Your task to perform on an android device: Search for "rayovac triple a" on target.com, select the first entry, and add it to the cart. Image 0: 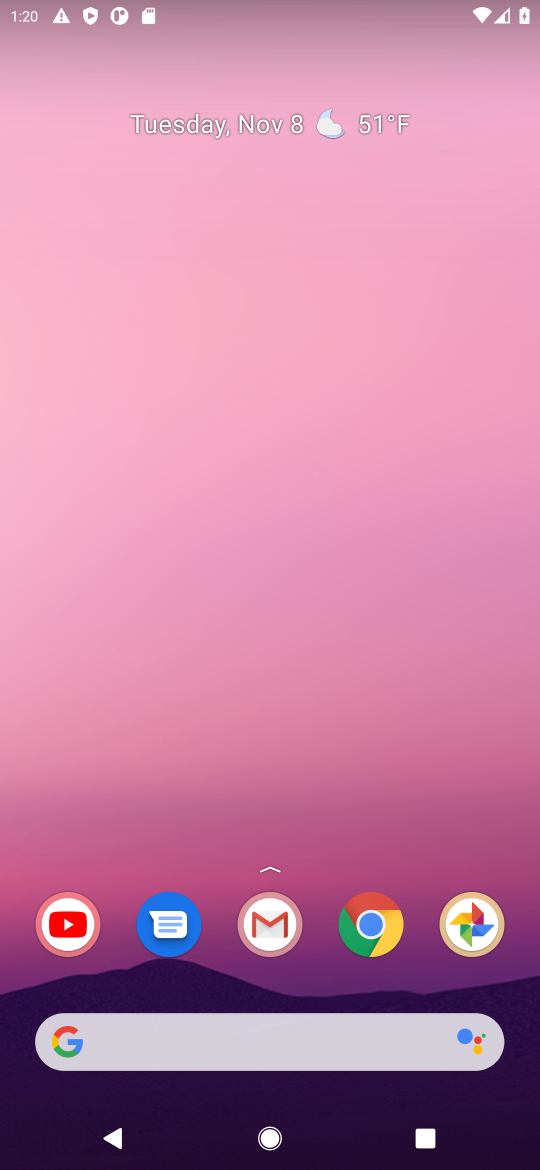
Step 0: click (362, 918)
Your task to perform on an android device: Search for "rayovac triple a" on target.com, select the first entry, and add it to the cart. Image 1: 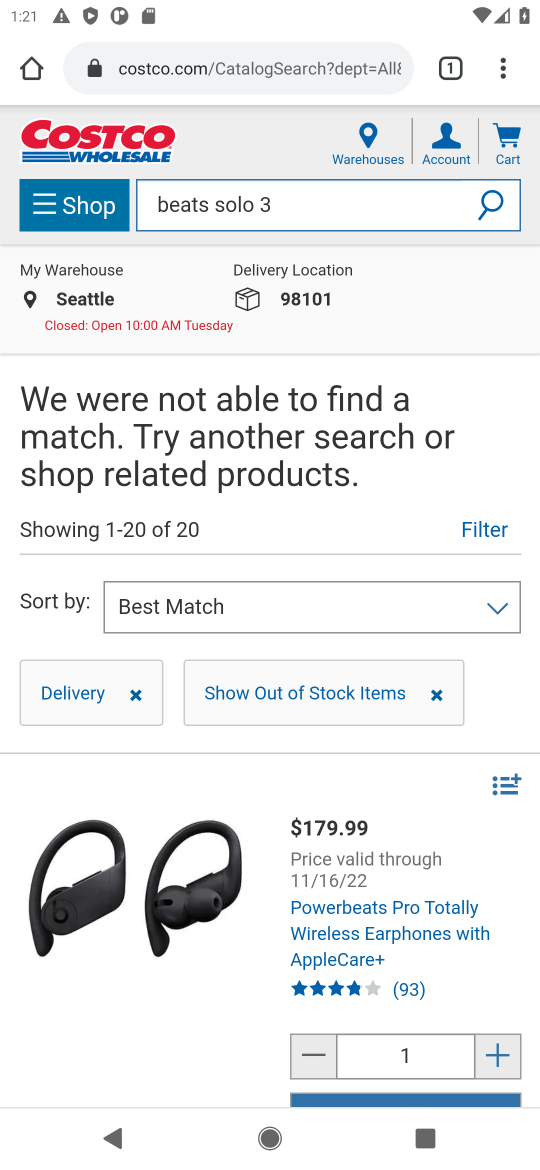
Step 1: task complete